Your task to perform on an android device: empty trash in the gmail app Image 0: 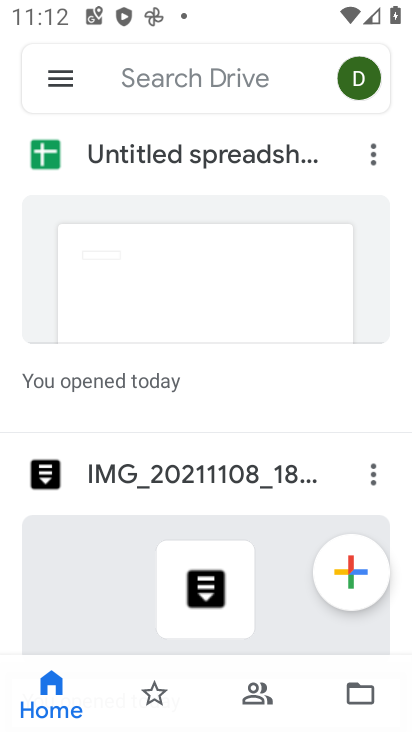
Step 0: press home button
Your task to perform on an android device: empty trash in the gmail app Image 1: 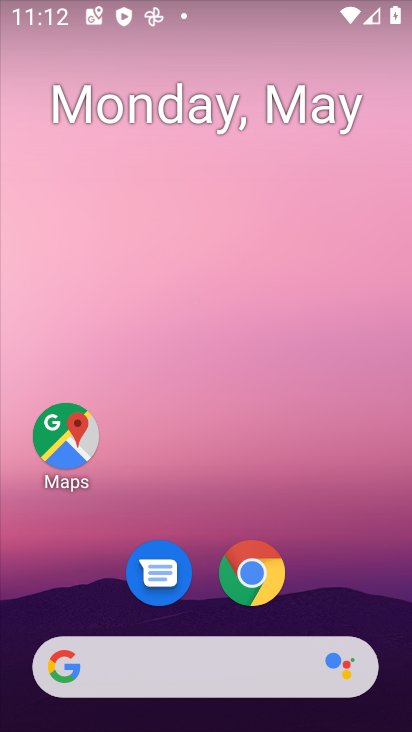
Step 1: drag from (377, 600) to (227, 2)
Your task to perform on an android device: empty trash in the gmail app Image 2: 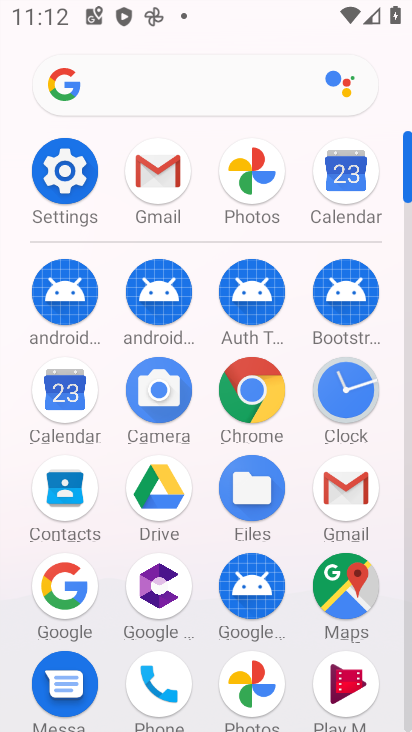
Step 2: click (172, 186)
Your task to perform on an android device: empty trash in the gmail app Image 3: 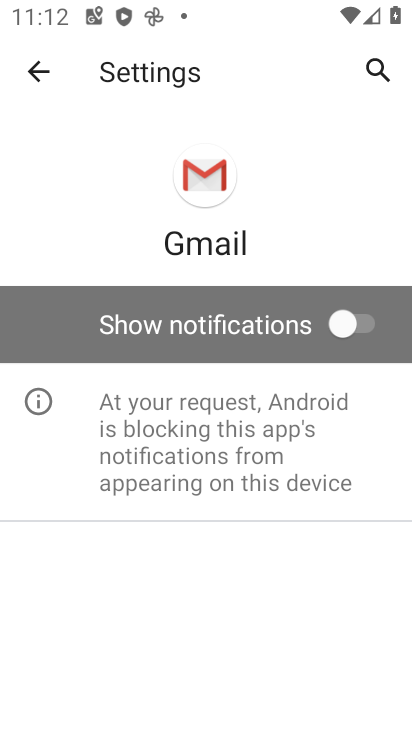
Step 3: press home button
Your task to perform on an android device: empty trash in the gmail app Image 4: 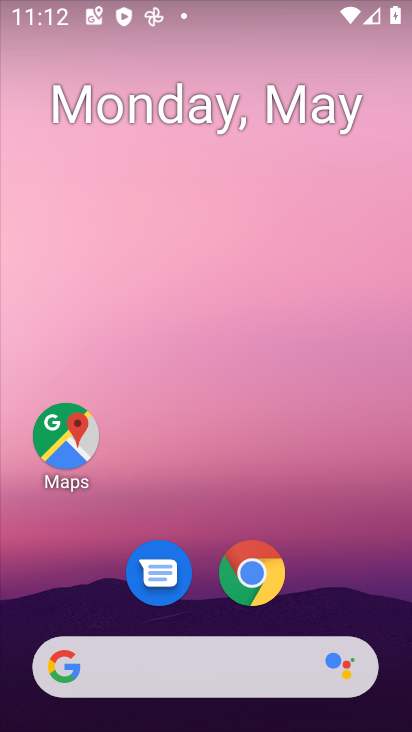
Step 4: drag from (362, 563) to (278, 15)
Your task to perform on an android device: empty trash in the gmail app Image 5: 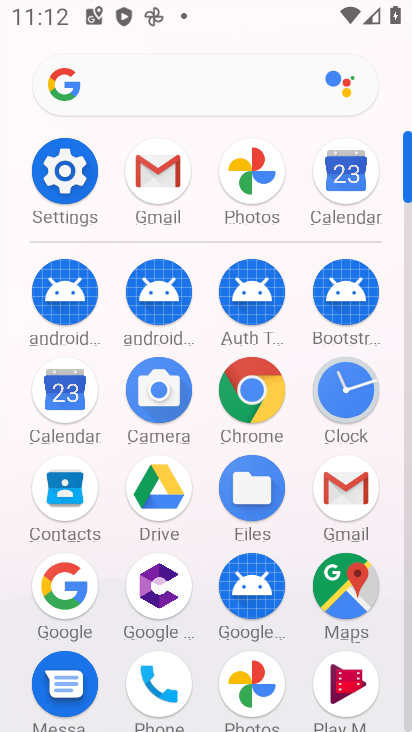
Step 5: click (150, 199)
Your task to perform on an android device: empty trash in the gmail app Image 6: 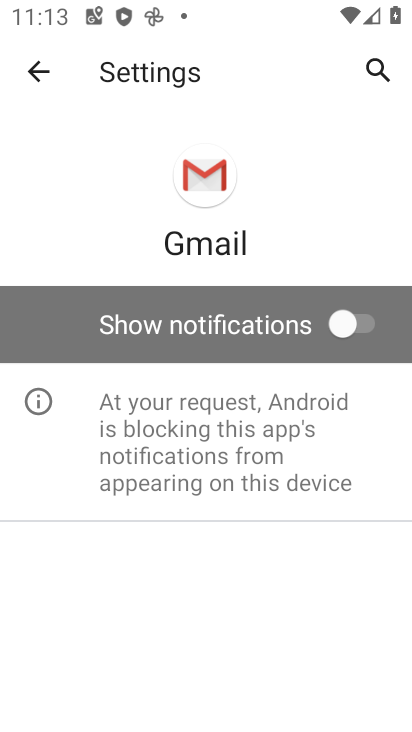
Step 6: task complete